Your task to perform on an android device: turn off sleep mode Image 0: 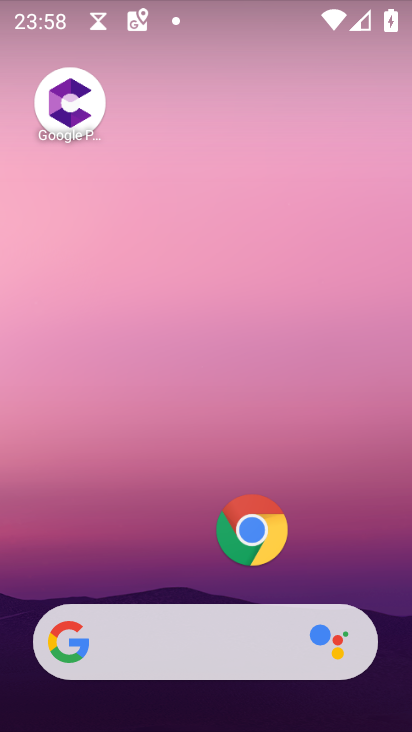
Step 0: drag from (359, 562) to (237, 175)
Your task to perform on an android device: turn off sleep mode Image 1: 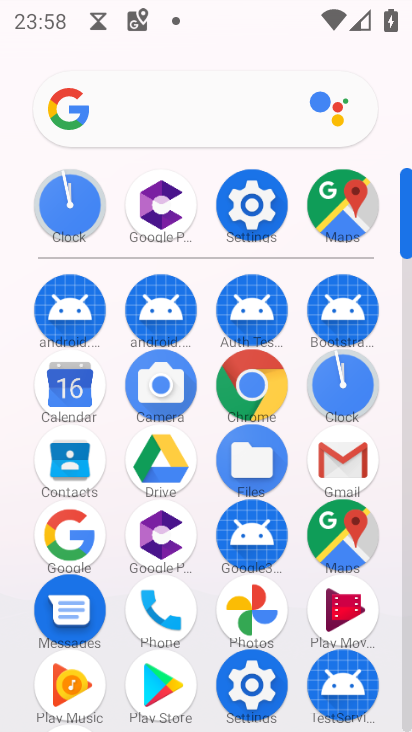
Step 1: click (261, 665)
Your task to perform on an android device: turn off sleep mode Image 2: 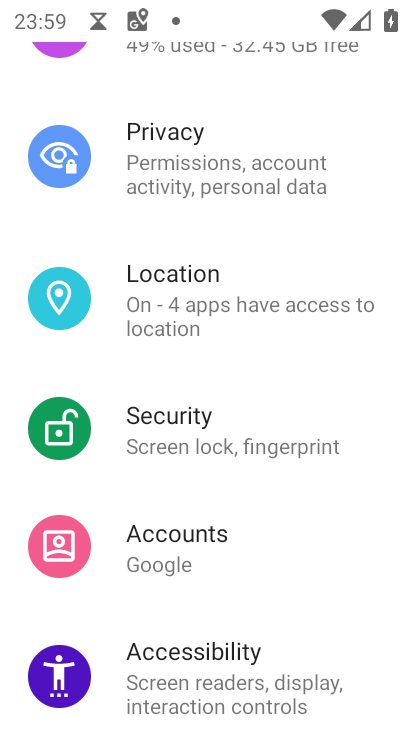
Step 2: drag from (282, 231) to (303, 634)
Your task to perform on an android device: turn off sleep mode Image 3: 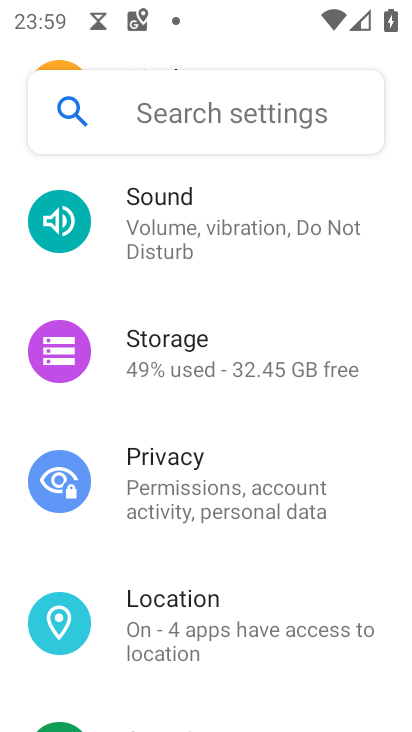
Step 3: drag from (280, 290) to (352, 683)
Your task to perform on an android device: turn off sleep mode Image 4: 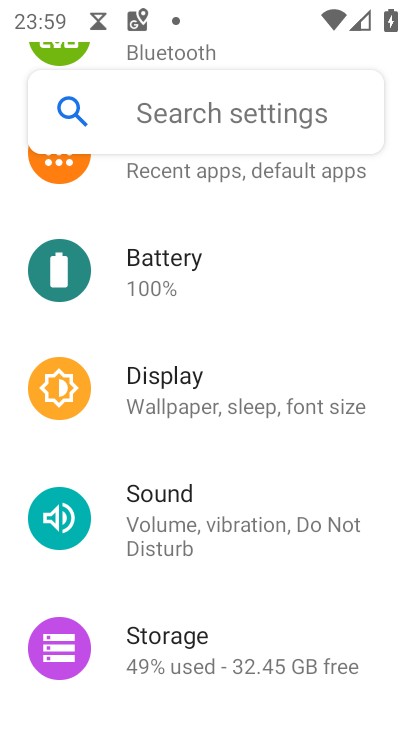
Step 4: click (271, 407)
Your task to perform on an android device: turn off sleep mode Image 5: 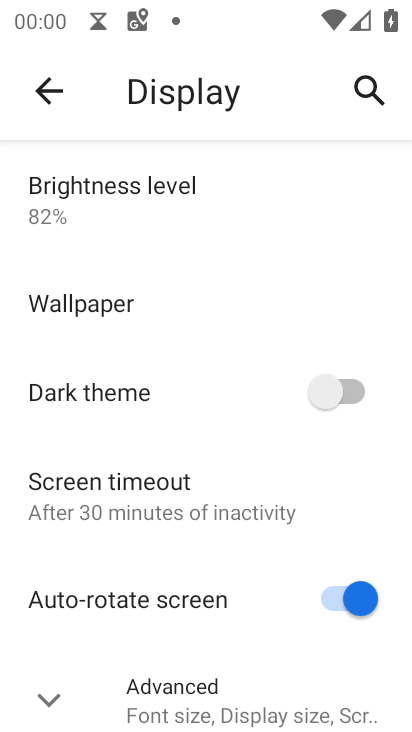
Step 5: task complete